Your task to perform on an android device: allow notifications from all sites in the chrome app Image 0: 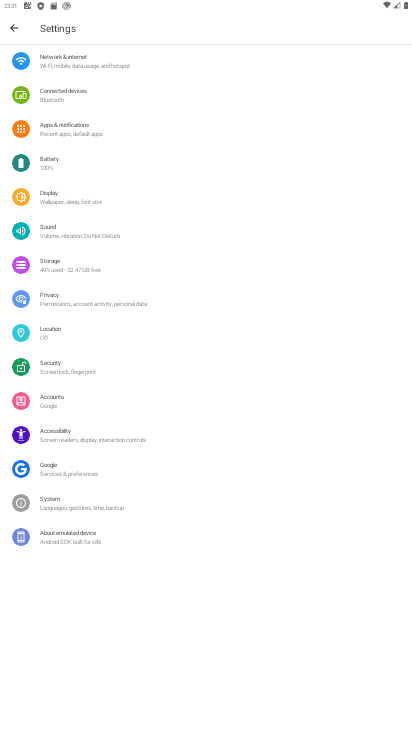
Step 0: press home button
Your task to perform on an android device: allow notifications from all sites in the chrome app Image 1: 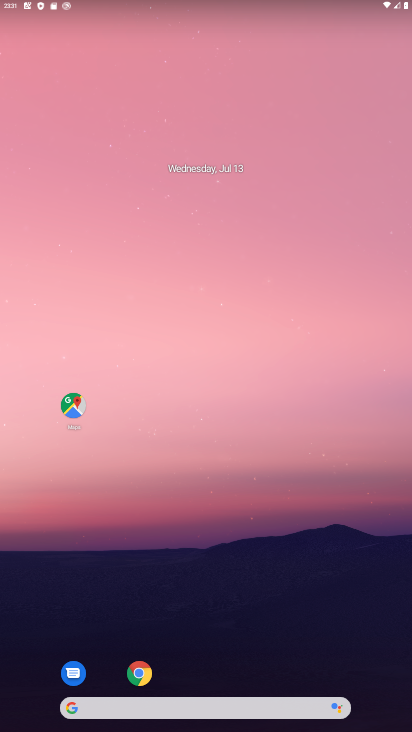
Step 1: click (141, 672)
Your task to perform on an android device: allow notifications from all sites in the chrome app Image 2: 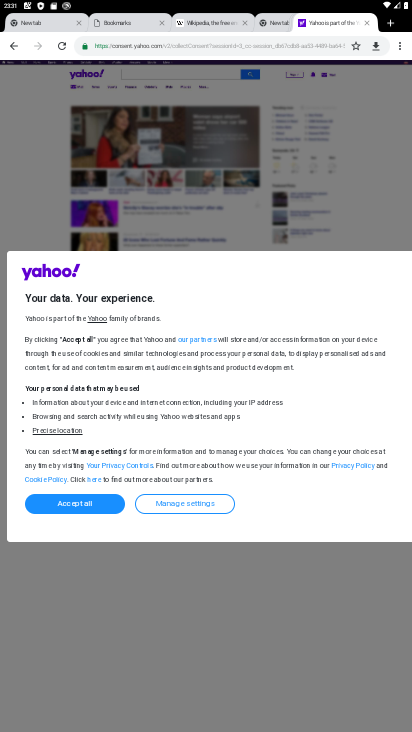
Step 2: click (395, 22)
Your task to perform on an android device: allow notifications from all sites in the chrome app Image 3: 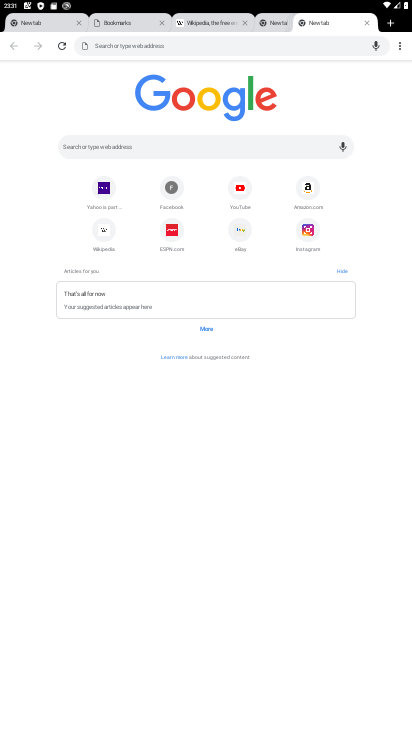
Step 3: click (400, 46)
Your task to perform on an android device: allow notifications from all sites in the chrome app Image 4: 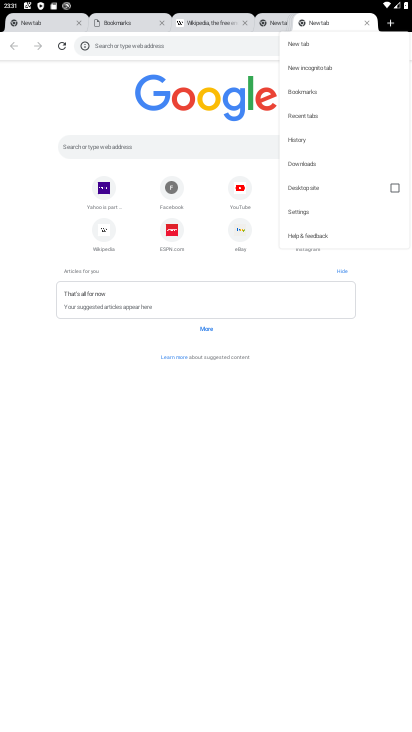
Step 4: click (319, 204)
Your task to perform on an android device: allow notifications from all sites in the chrome app Image 5: 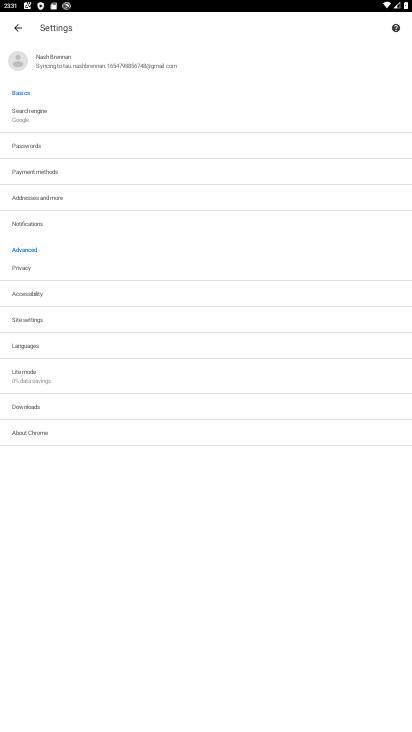
Step 5: click (39, 221)
Your task to perform on an android device: allow notifications from all sites in the chrome app Image 6: 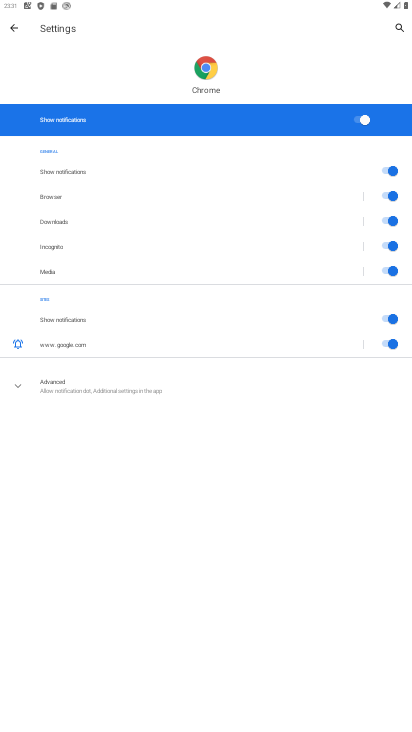
Step 6: task complete